Your task to perform on an android device: toggle priority inbox in the gmail app Image 0: 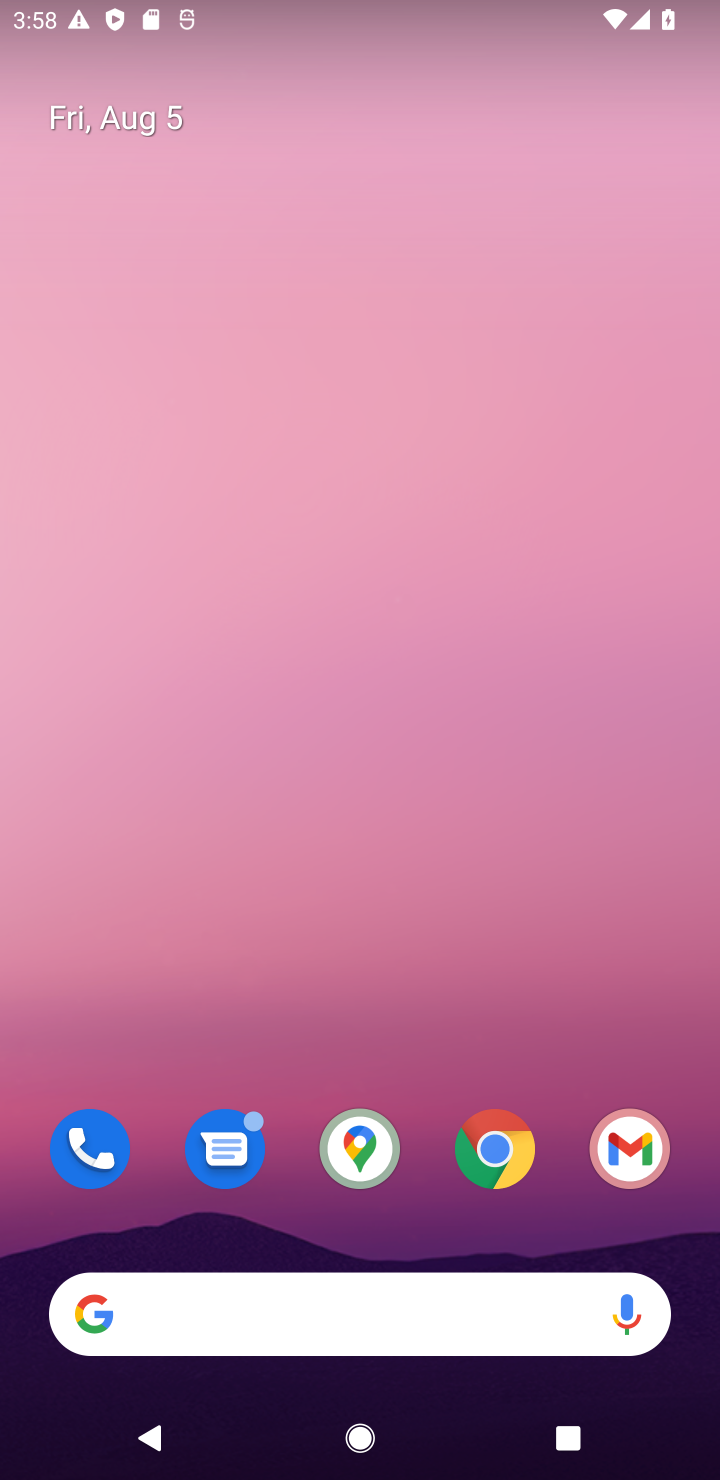
Step 0: drag from (298, 1016) to (409, 338)
Your task to perform on an android device: toggle priority inbox in the gmail app Image 1: 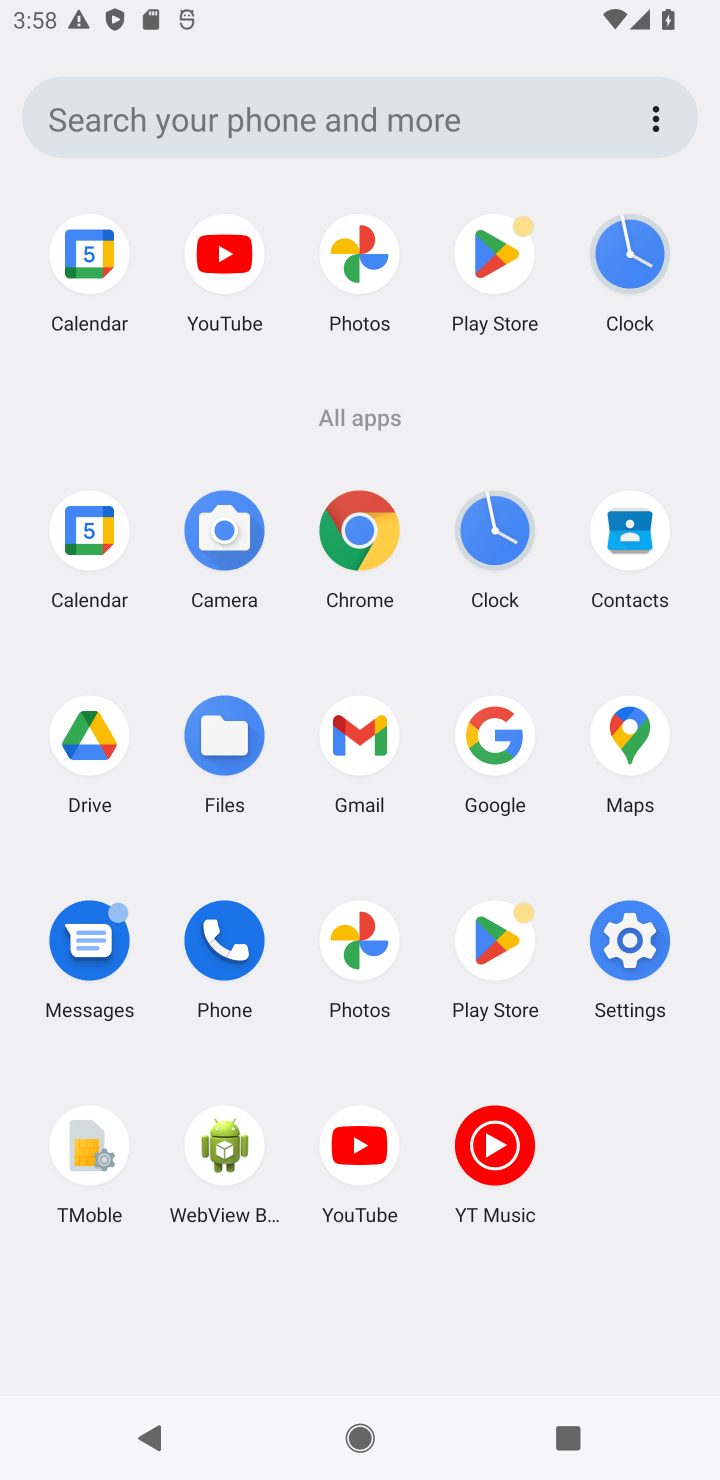
Step 1: click (363, 736)
Your task to perform on an android device: toggle priority inbox in the gmail app Image 2: 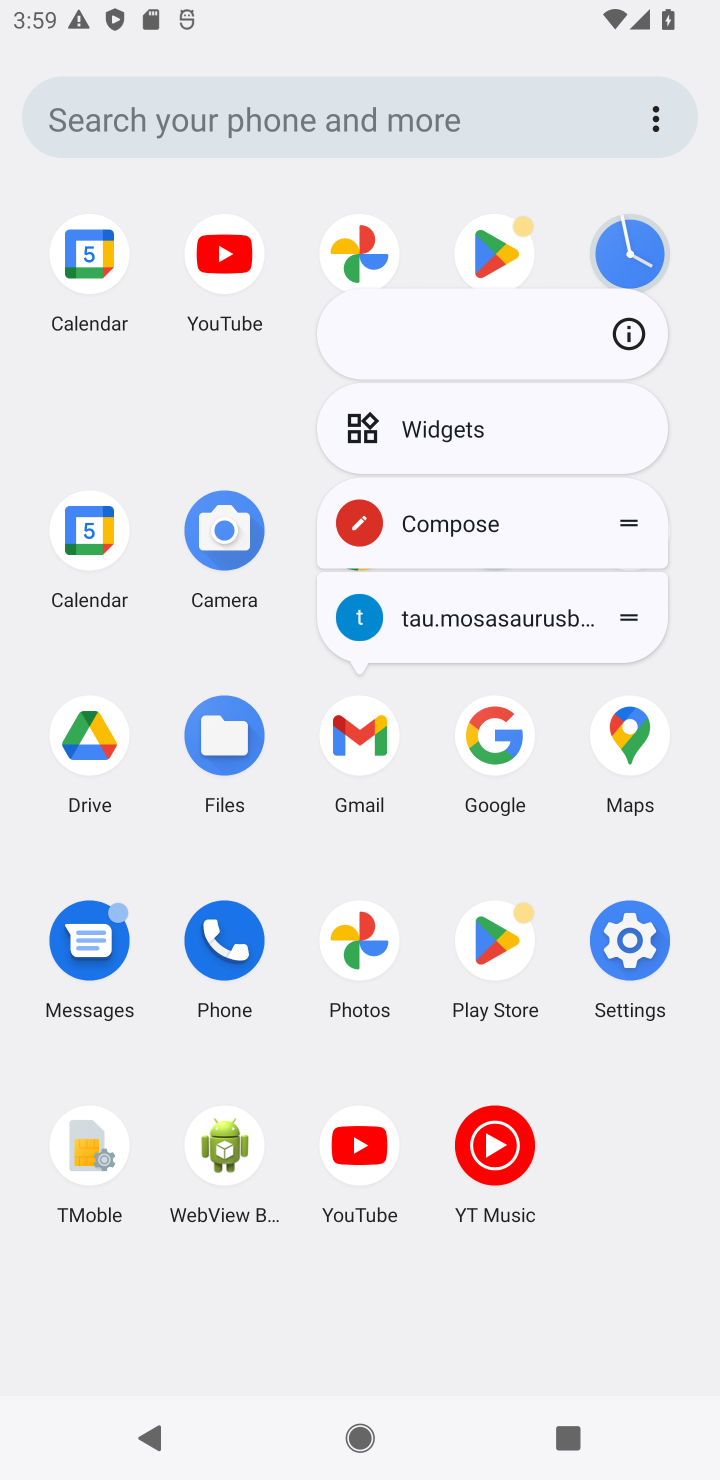
Step 2: click (480, 925)
Your task to perform on an android device: toggle priority inbox in the gmail app Image 3: 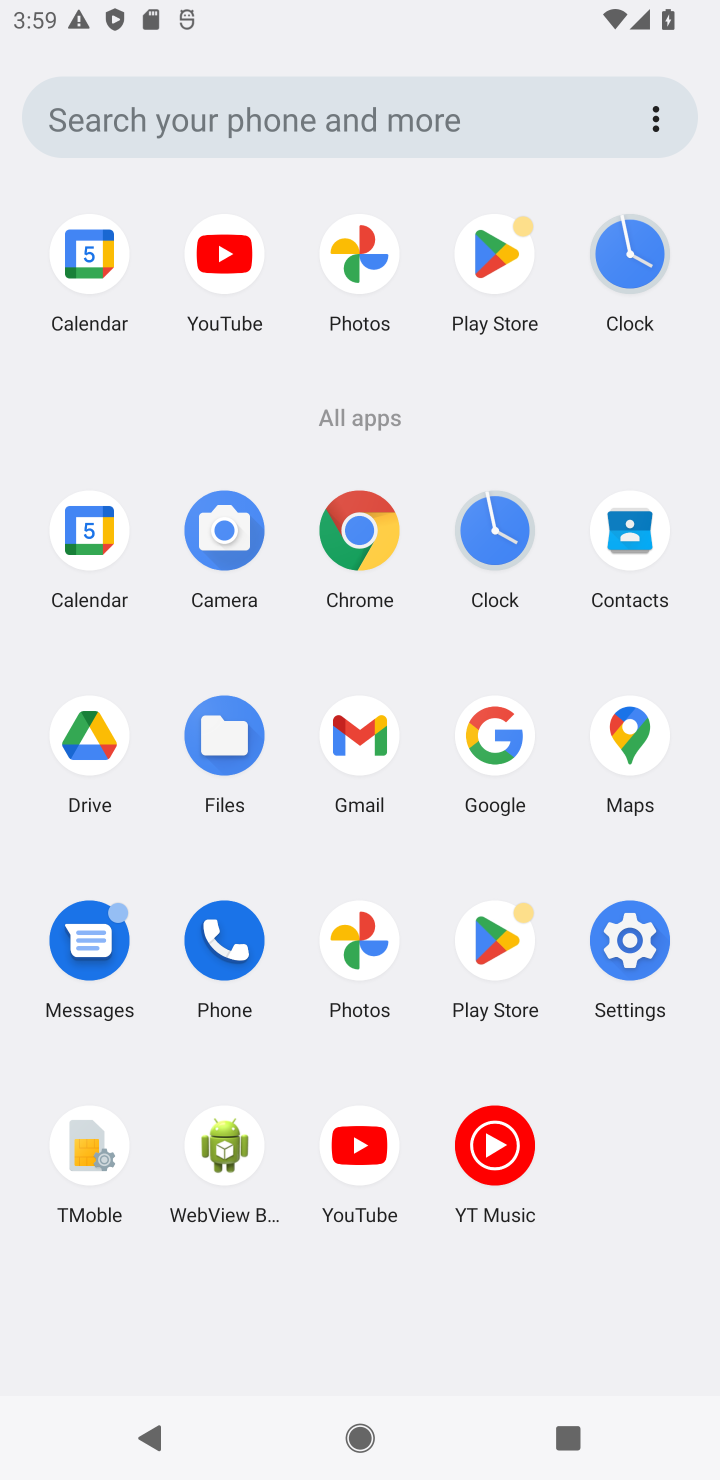
Step 3: click (357, 726)
Your task to perform on an android device: toggle priority inbox in the gmail app Image 4: 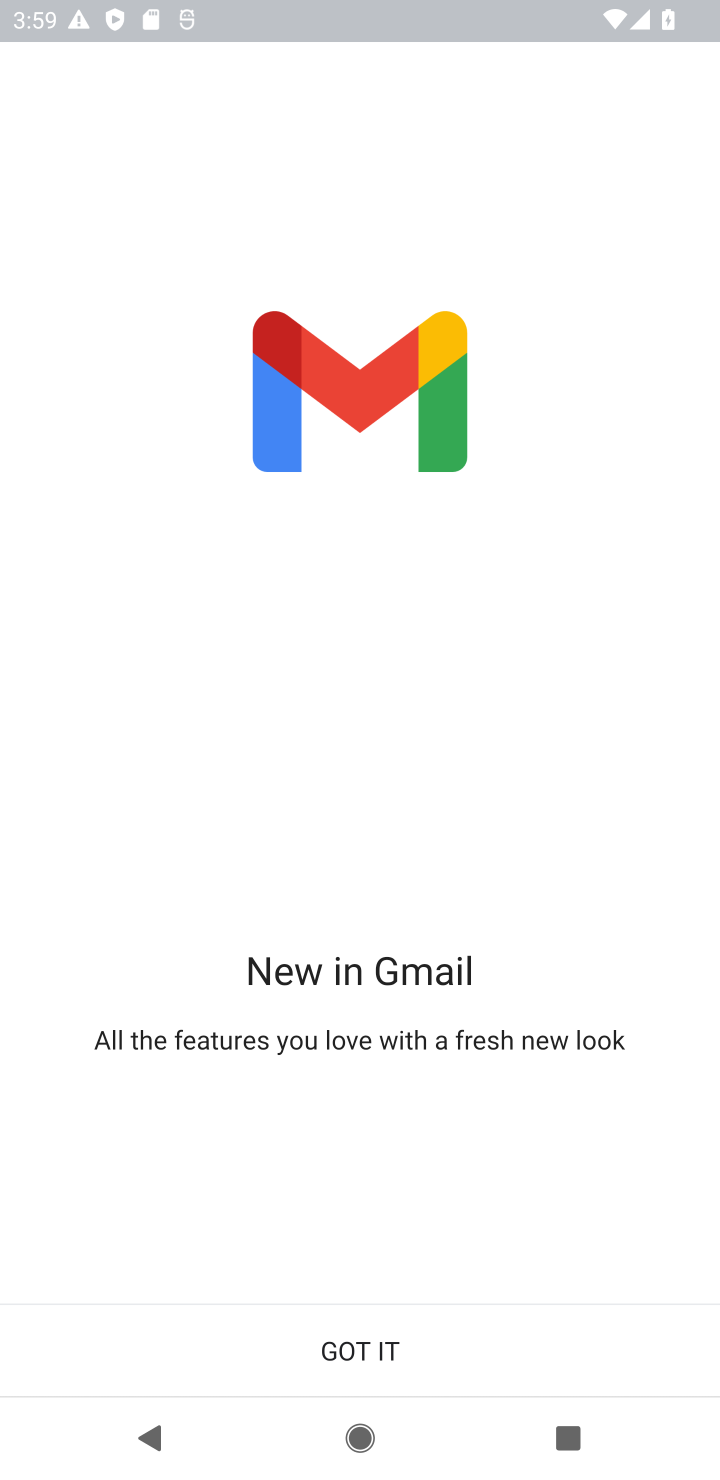
Step 4: click (334, 1351)
Your task to perform on an android device: toggle priority inbox in the gmail app Image 5: 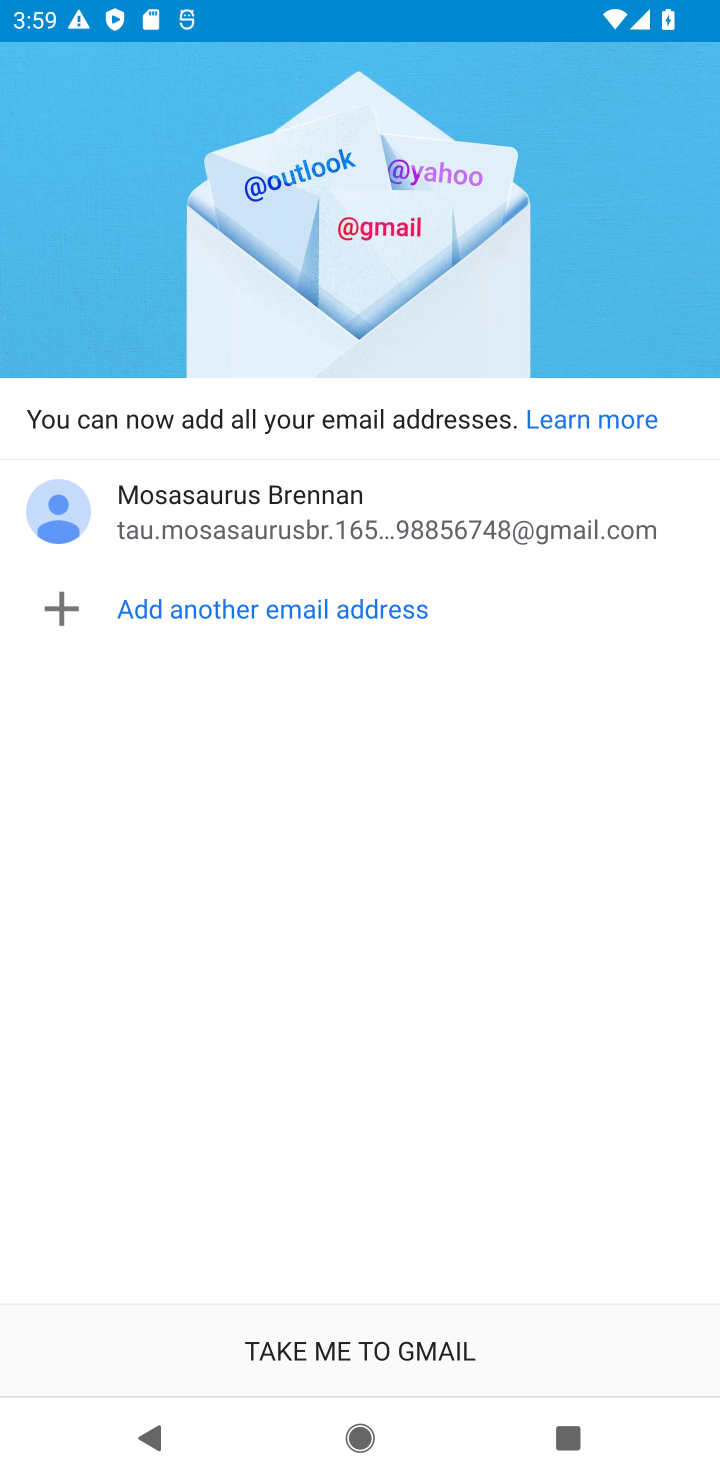
Step 5: click (342, 1351)
Your task to perform on an android device: toggle priority inbox in the gmail app Image 6: 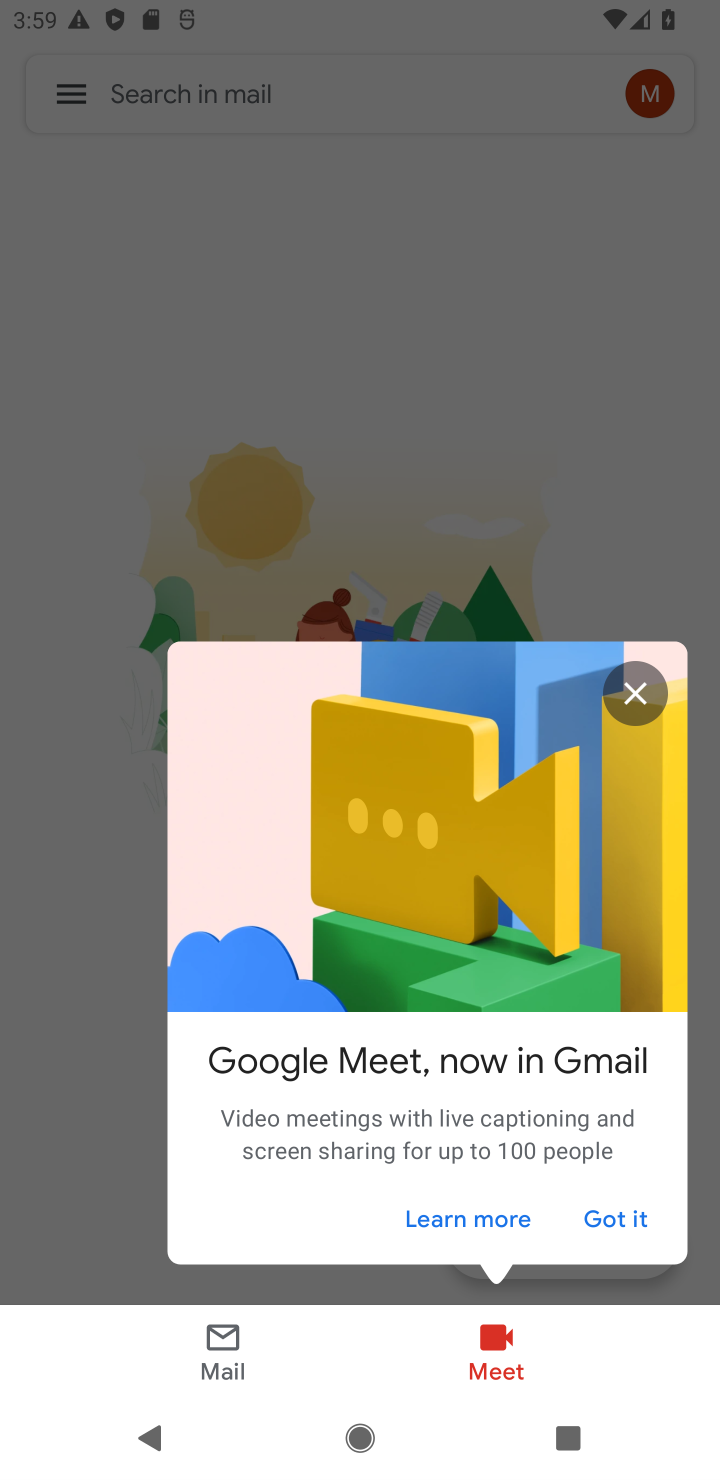
Step 6: click (585, 1227)
Your task to perform on an android device: toggle priority inbox in the gmail app Image 7: 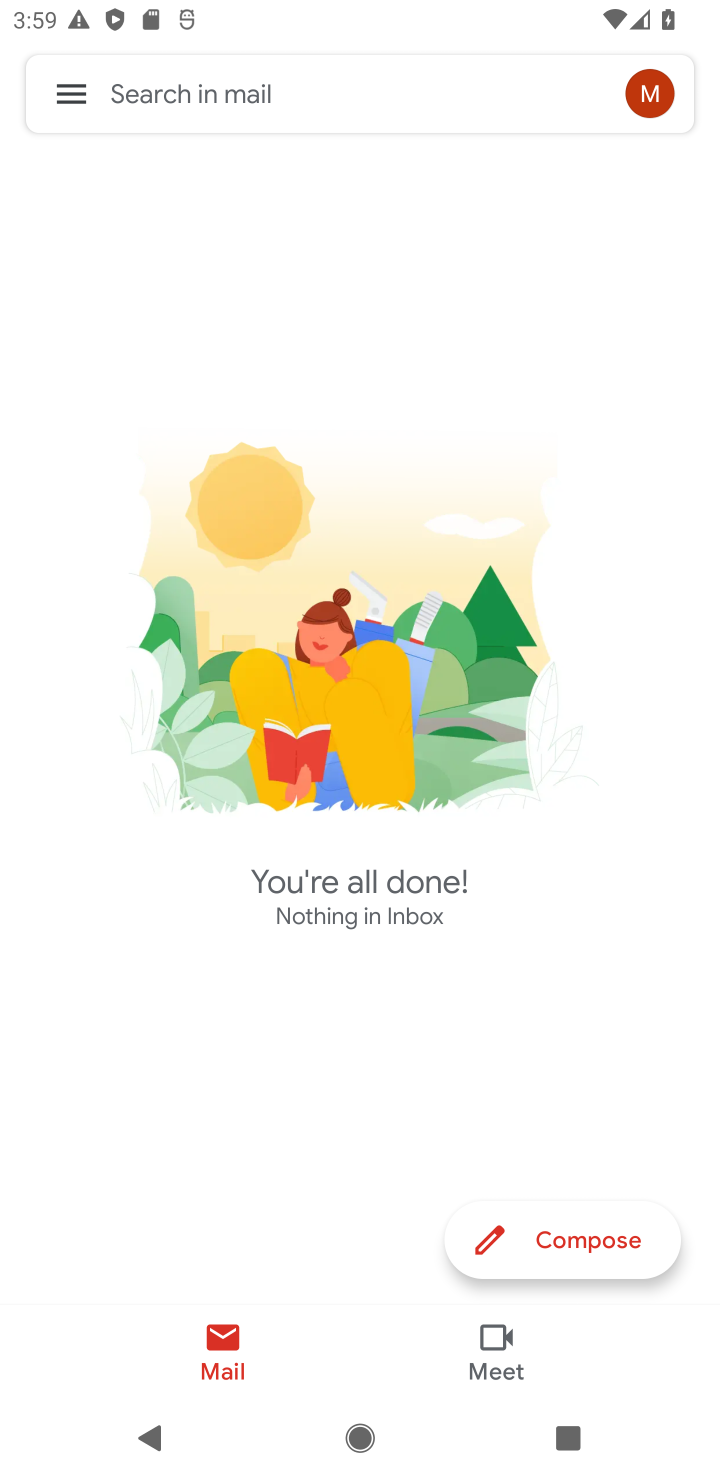
Step 7: click (66, 99)
Your task to perform on an android device: toggle priority inbox in the gmail app Image 8: 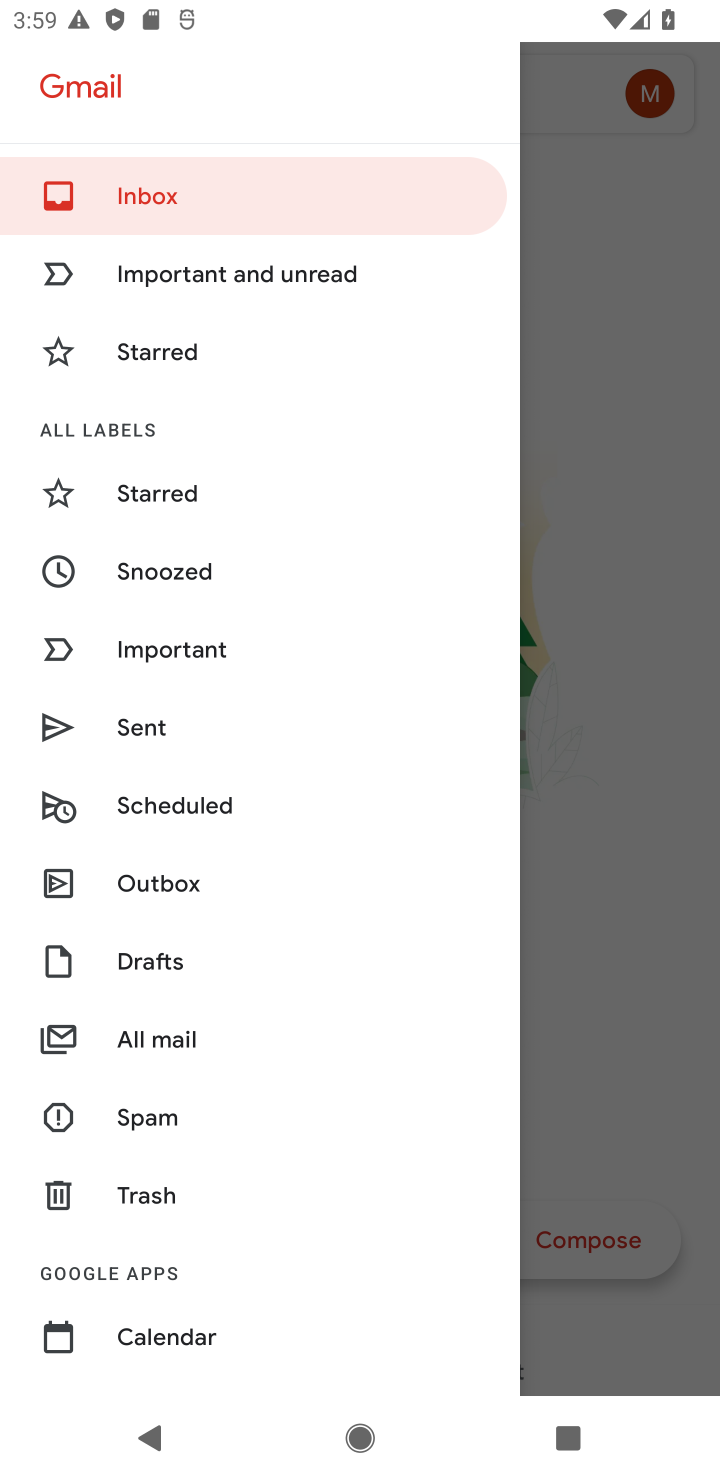
Step 8: drag from (257, 1301) to (450, 147)
Your task to perform on an android device: toggle priority inbox in the gmail app Image 9: 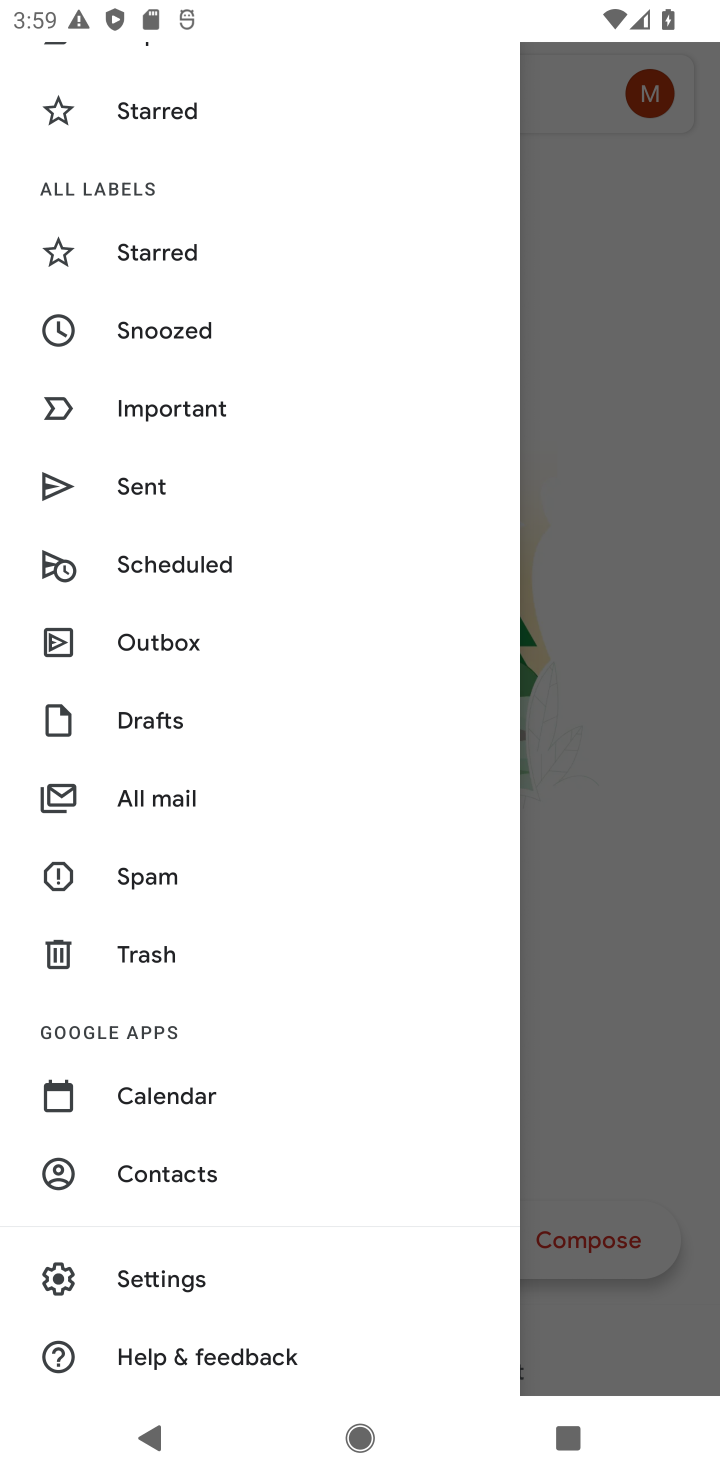
Step 9: drag from (333, 1281) to (421, 400)
Your task to perform on an android device: toggle priority inbox in the gmail app Image 10: 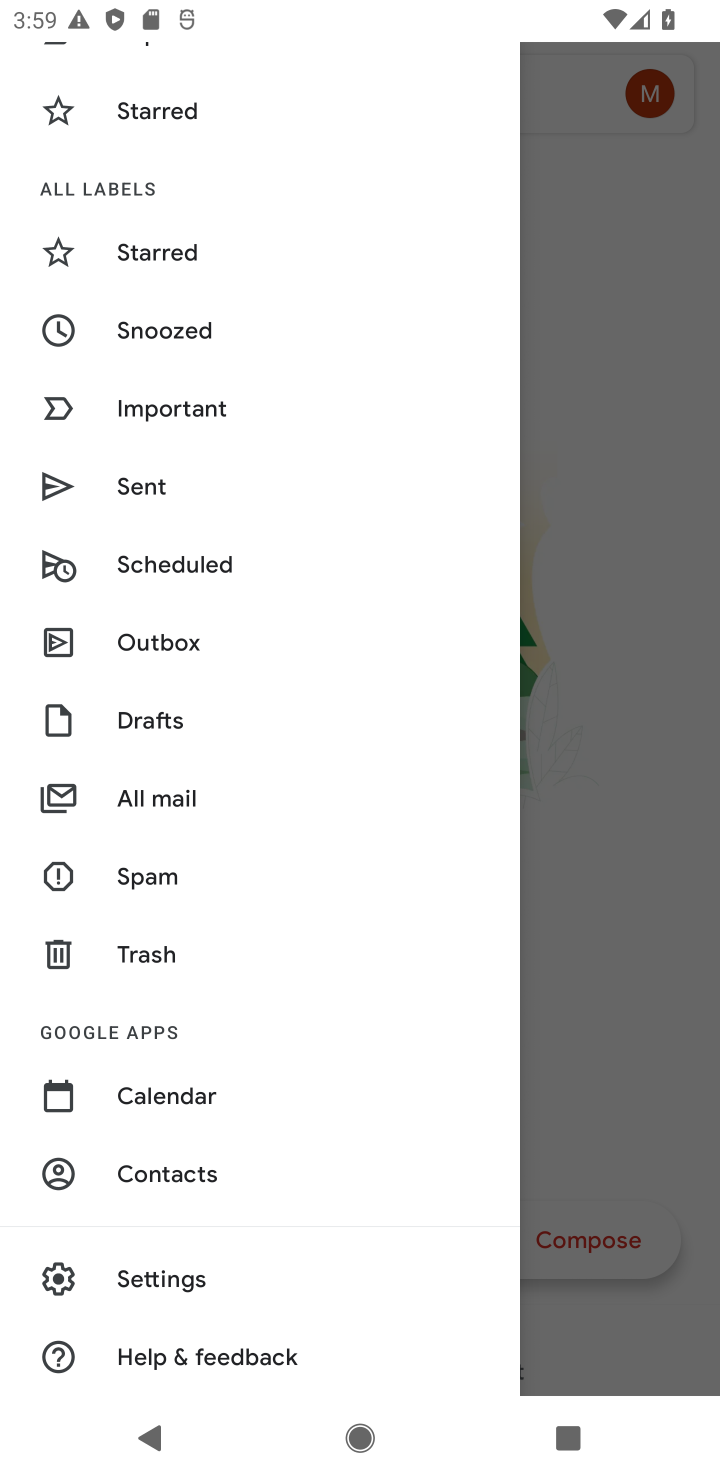
Step 10: click (186, 1275)
Your task to perform on an android device: toggle priority inbox in the gmail app Image 11: 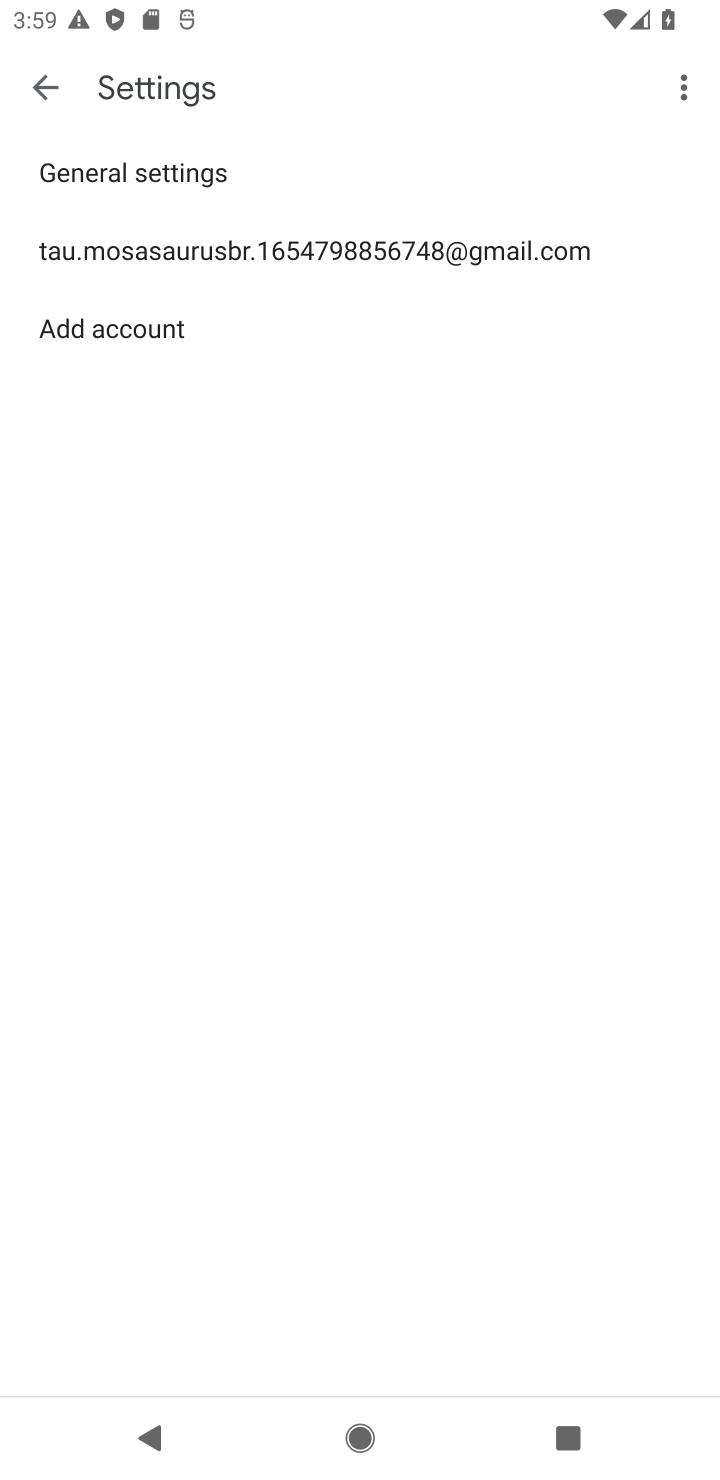
Step 11: click (189, 255)
Your task to perform on an android device: toggle priority inbox in the gmail app Image 12: 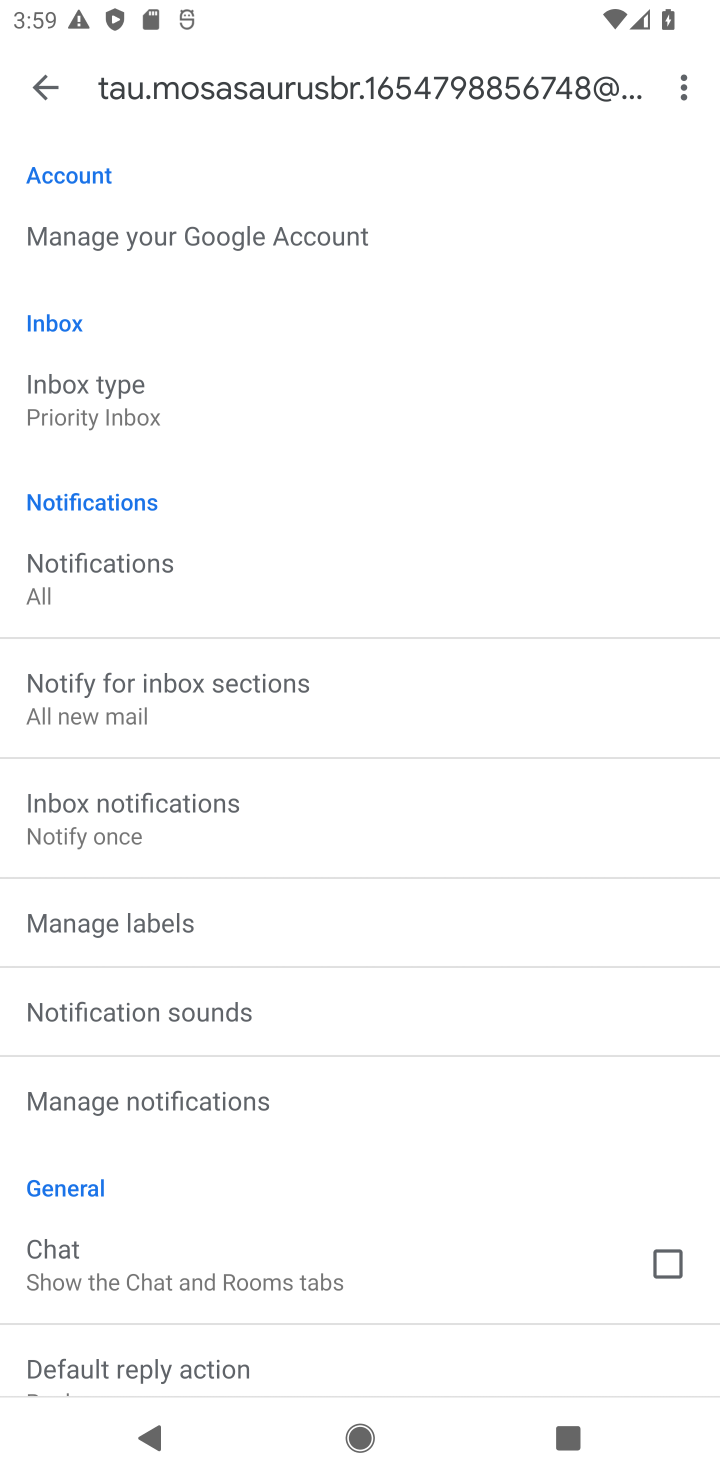
Step 12: click (114, 385)
Your task to perform on an android device: toggle priority inbox in the gmail app Image 13: 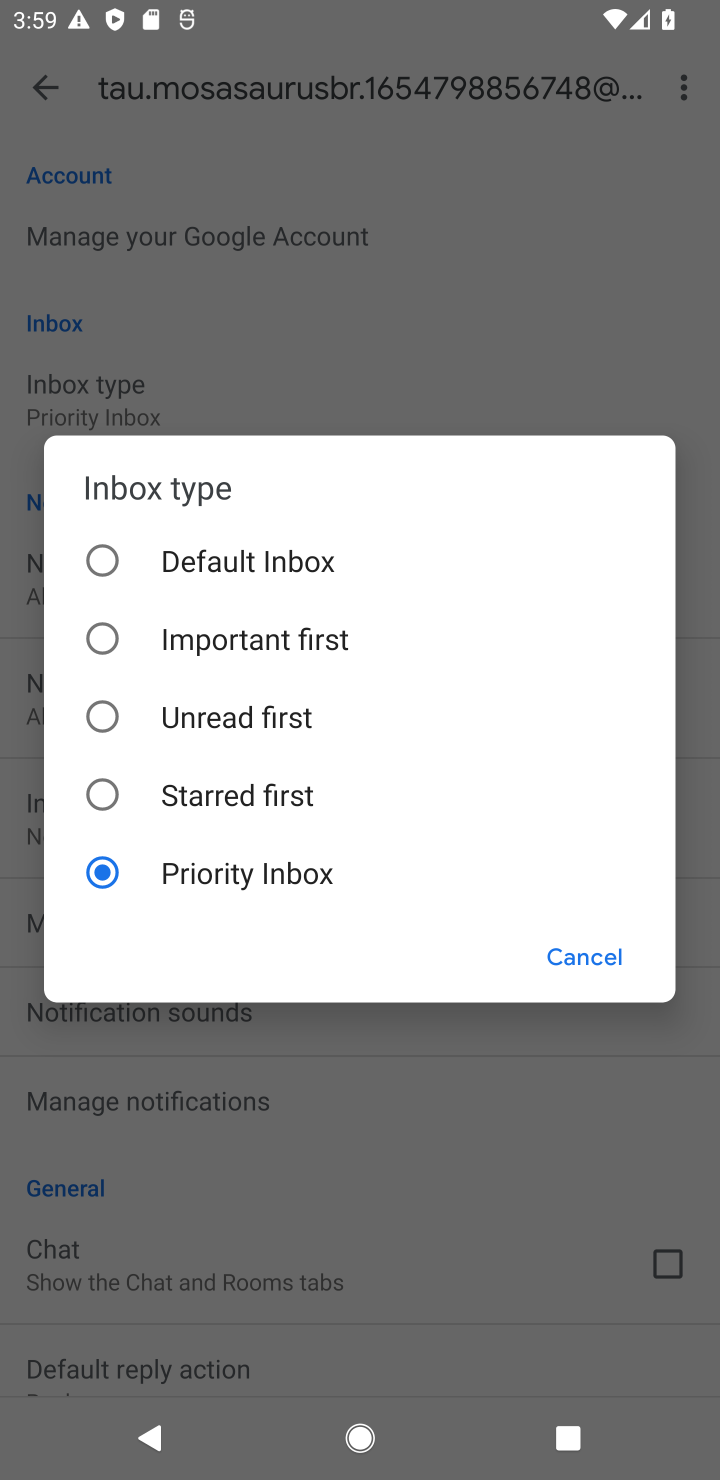
Step 13: click (144, 882)
Your task to perform on an android device: toggle priority inbox in the gmail app Image 14: 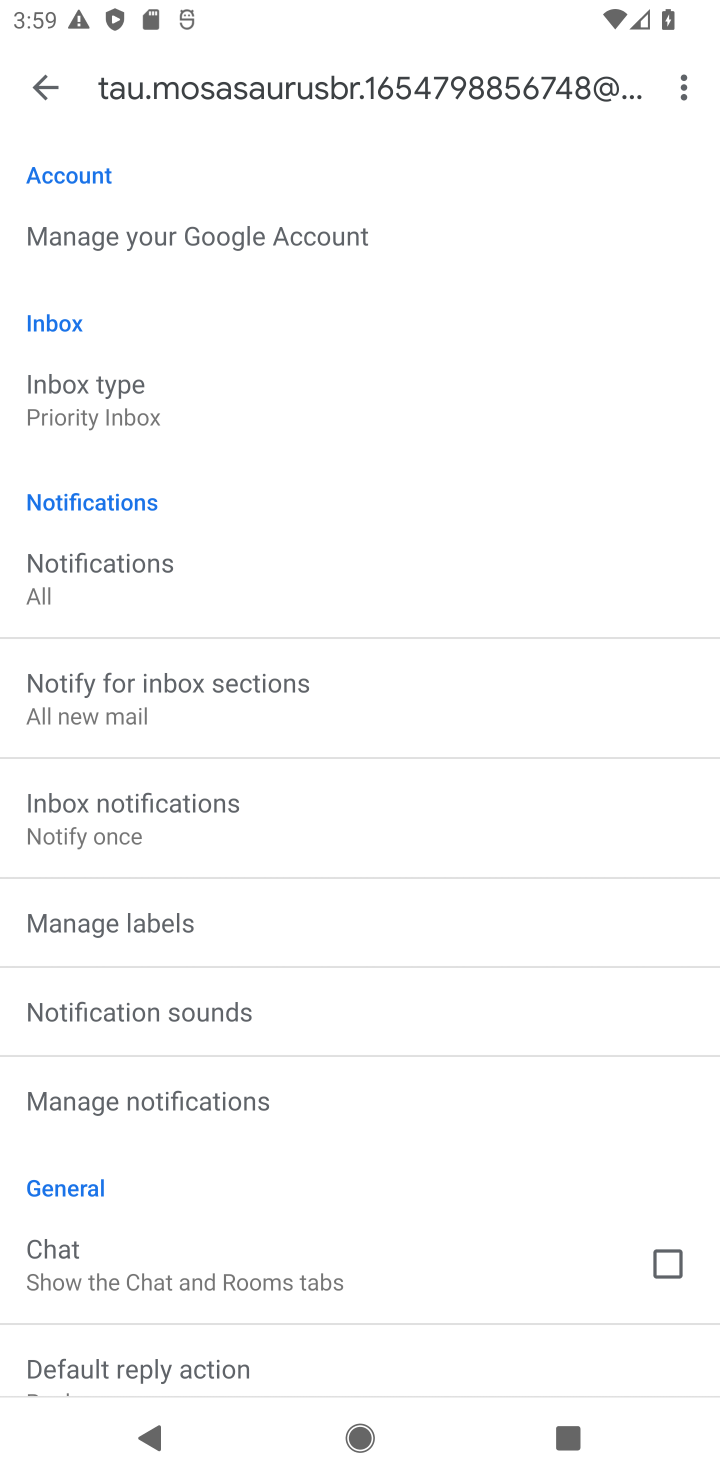
Step 14: task complete